Your task to perform on an android device: Toggle the flashlight Image 0: 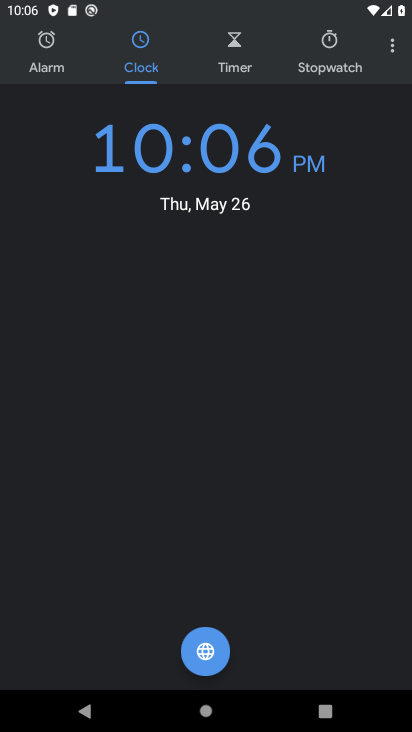
Step 0: press back button
Your task to perform on an android device: Toggle the flashlight Image 1: 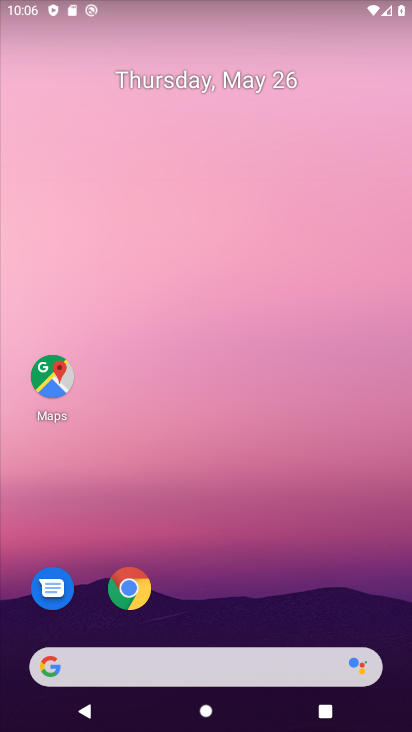
Step 1: task complete